Your task to perform on an android device: Open Maps and search for coffee Image 0: 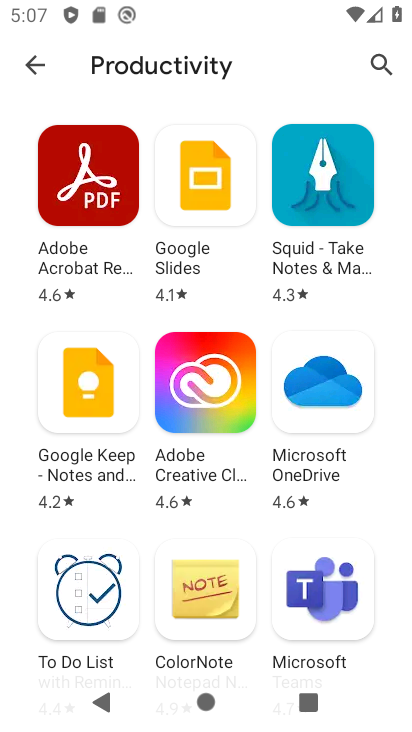
Step 0: press home button
Your task to perform on an android device: Open Maps and search for coffee Image 1: 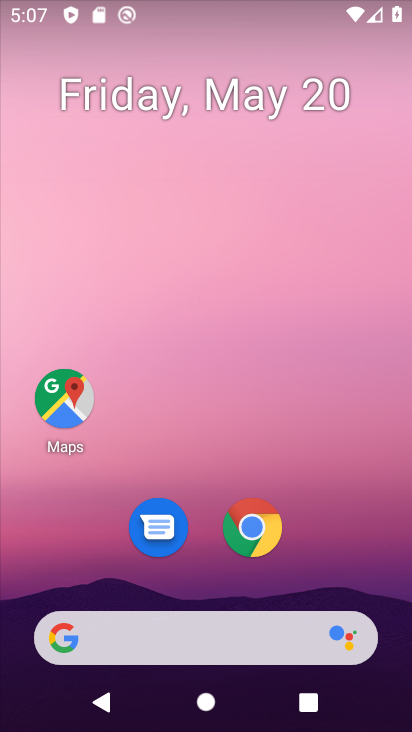
Step 1: click (302, 633)
Your task to perform on an android device: Open Maps and search for coffee Image 2: 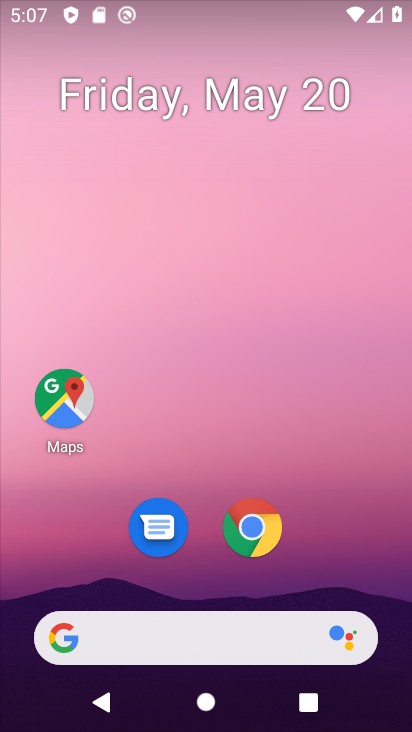
Step 2: drag from (329, 607) to (374, 6)
Your task to perform on an android device: Open Maps and search for coffee Image 3: 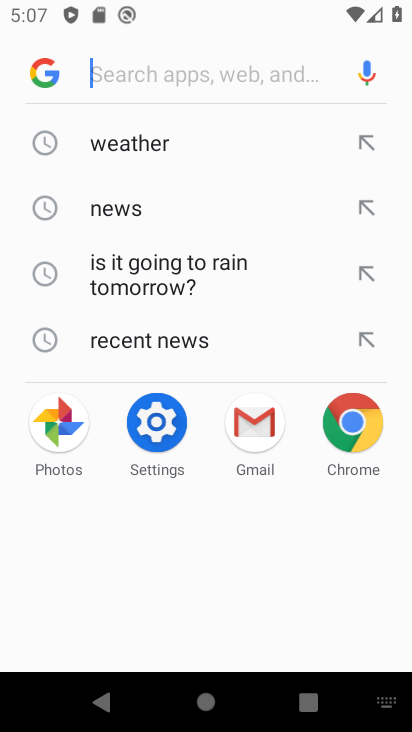
Step 3: press home button
Your task to perform on an android device: Open Maps and search for coffee Image 4: 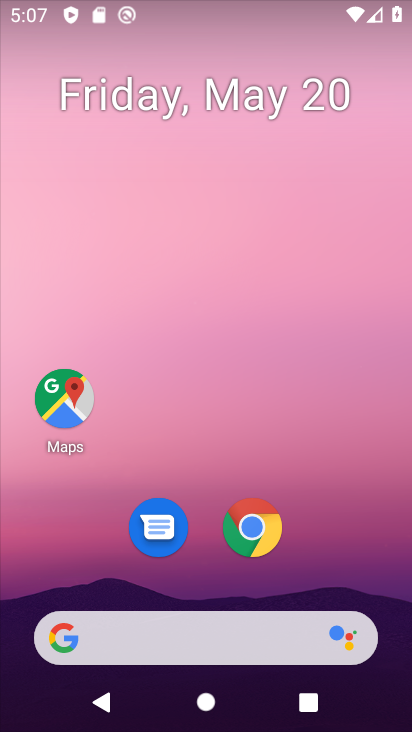
Step 4: drag from (302, 610) to (312, 26)
Your task to perform on an android device: Open Maps and search for coffee Image 5: 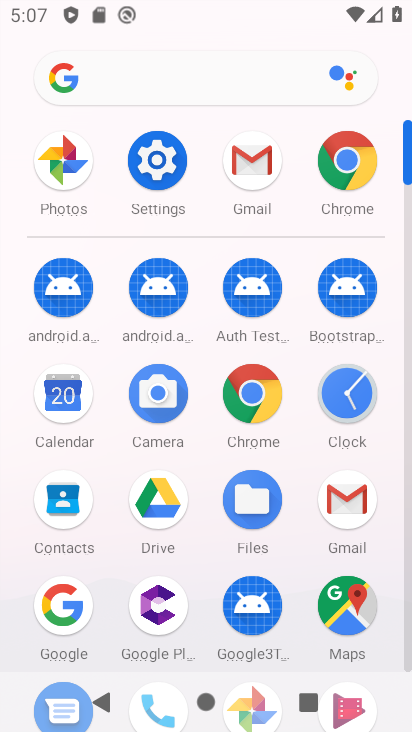
Step 5: click (338, 595)
Your task to perform on an android device: Open Maps and search for coffee Image 6: 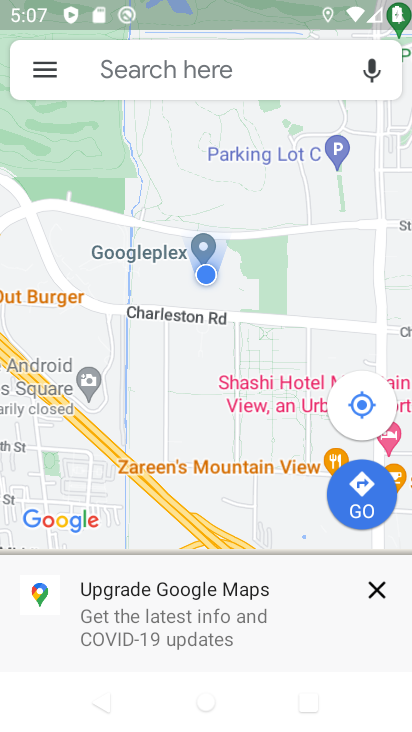
Step 6: click (258, 65)
Your task to perform on an android device: Open Maps and search for coffee Image 7: 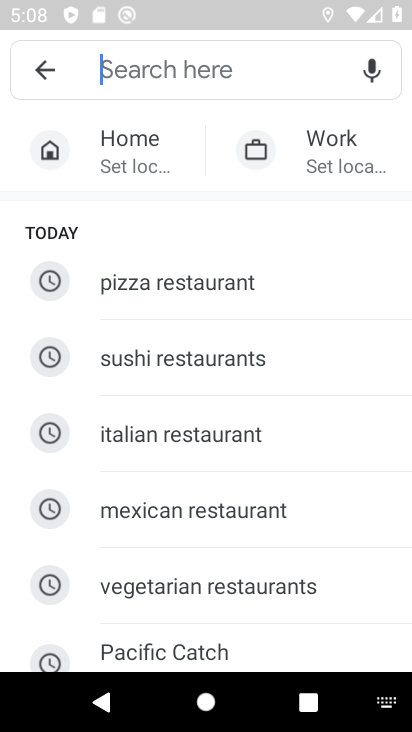
Step 7: type "coffee"
Your task to perform on an android device: Open Maps and search for coffee Image 8: 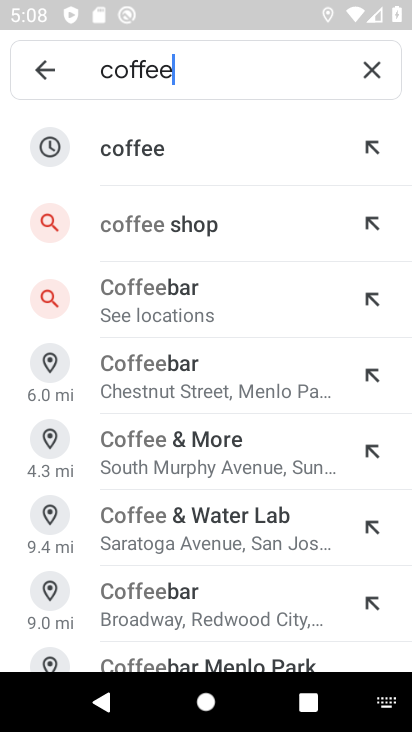
Step 8: click (132, 140)
Your task to perform on an android device: Open Maps and search for coffee Image 9: 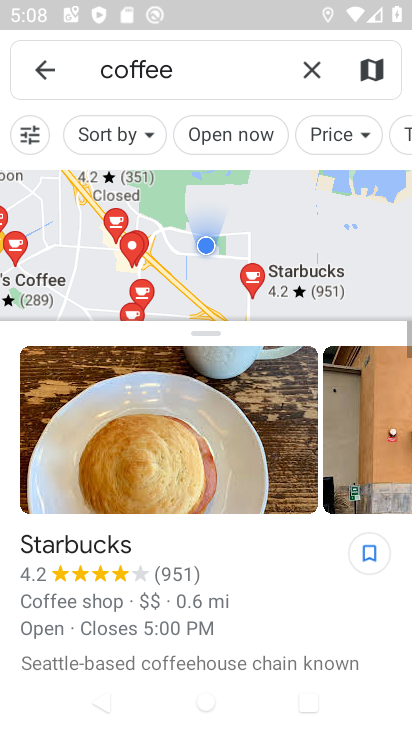
Step 9: task complete